Your task to perform on an android device: set the stopwatch Image 0: 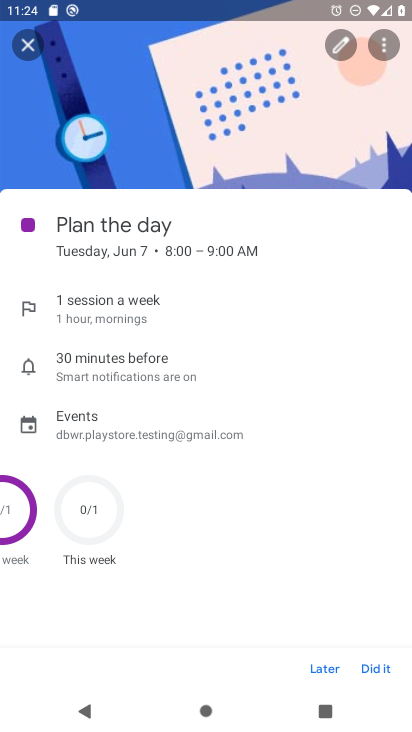
Step 0: press home button
Your task to perform on an android device: set the stopwatch Image 1: 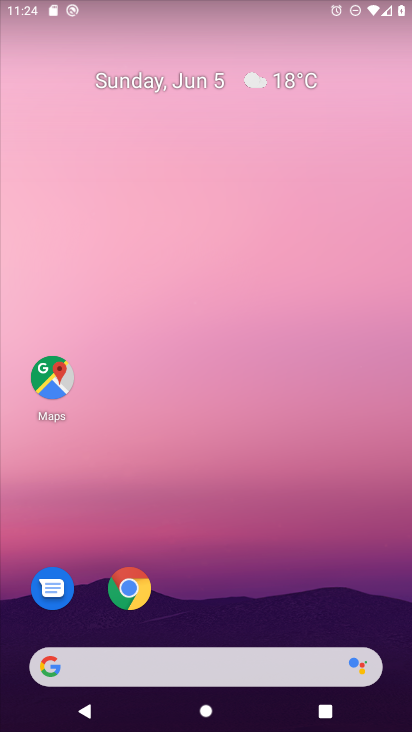
Step 1: drag from (352, 601) to (349, 164)
Your task to perform on an android device: set the stopwatch Image 2: 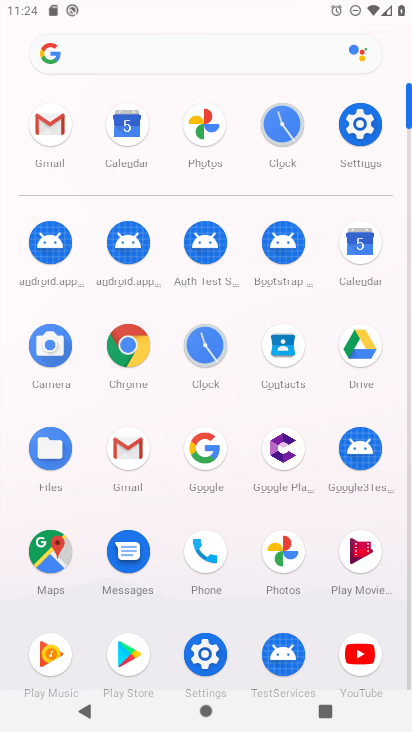
Step 2: click (212, 347)
Your task to perform on an android device: set the stopwatch Image 3: 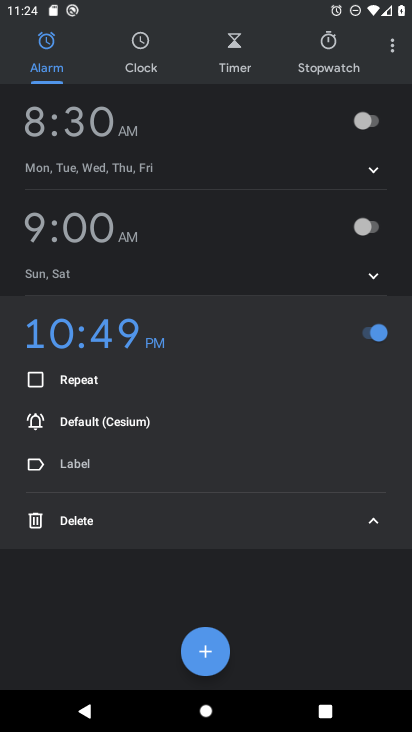
Step 3: click (326, 63)
Your task to perform on an android device: set the stopwatch Image 4: 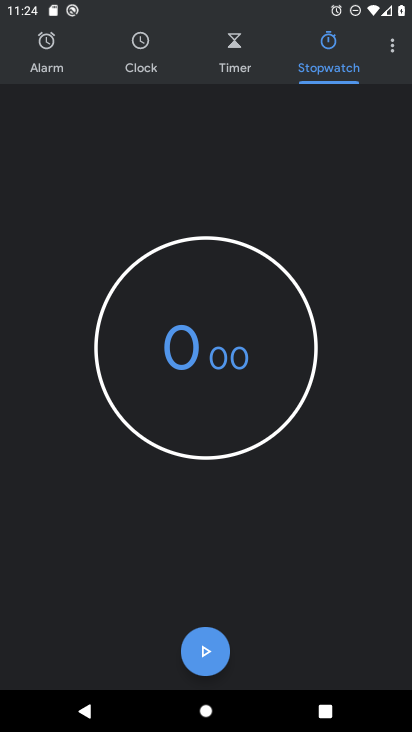
Step 4: click (213, 659)
Your task to perform on an android device: set the stopwatch Image 5: 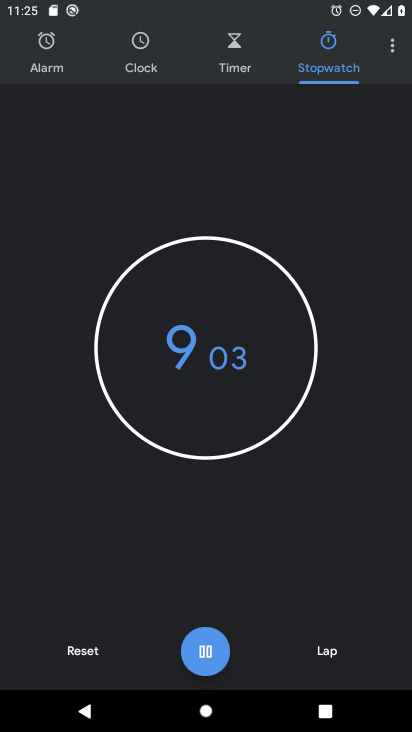
Step 5: task complete